Your task to perform on an android device: turn on translation in the chrome app Image 0: 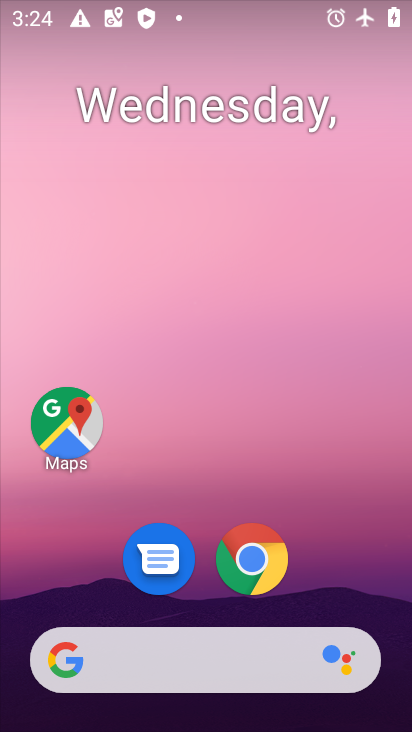
Step 0: drag from (196, 725) to (196, 154)
Your task to perform on an android device: turn on translation in the chrome app Image 1: 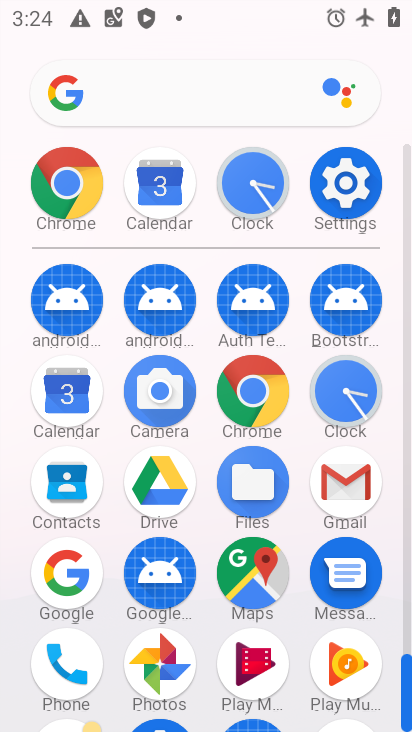
Step 1: click (259, 391)
Your task to perform on an android device: turn on translation in the chrome app Image 2: 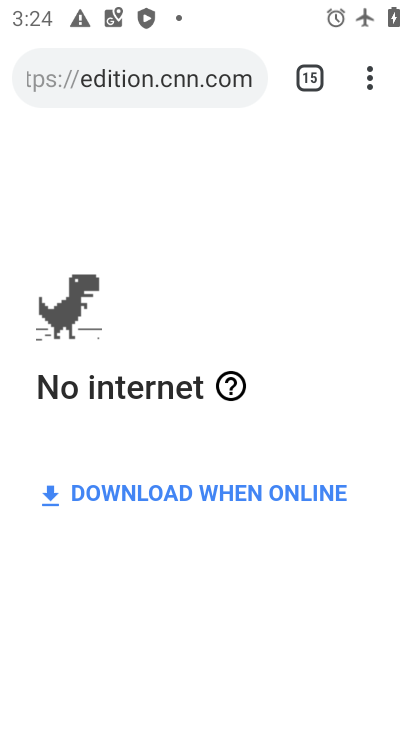
Step 2: click (369, 78)
Your task to perform on an android device: turn on translation in the chrome app Image 3: 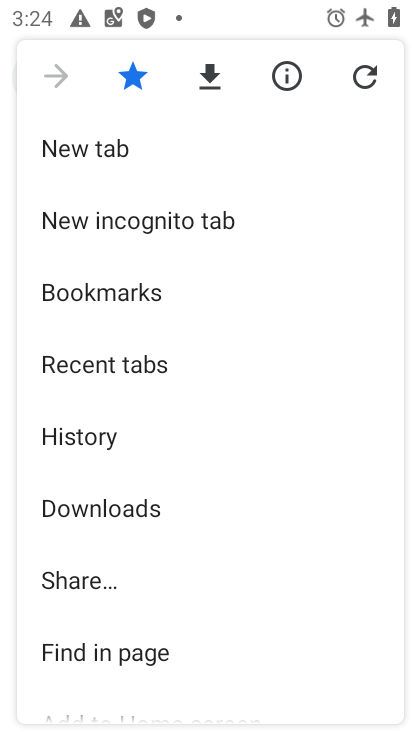
Step 3: drag from (142, 610) to (147, 227)
Your task to perform on an android device: turn on translation in the chrome app Image 4: 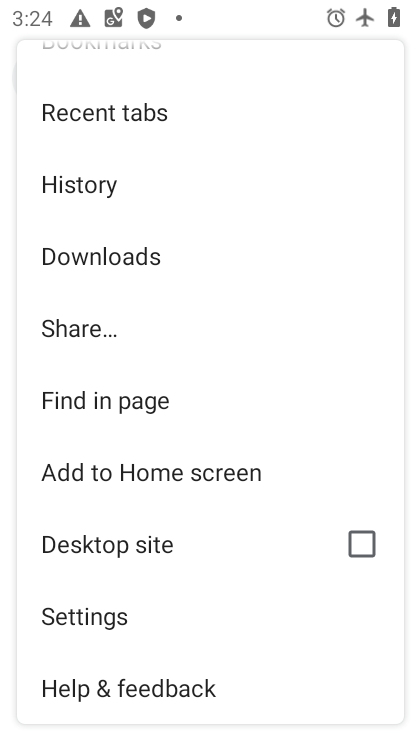
Step 4: click (107, 614)
Your task to perform on an android device: turn on translation in the chrome app Image 5: 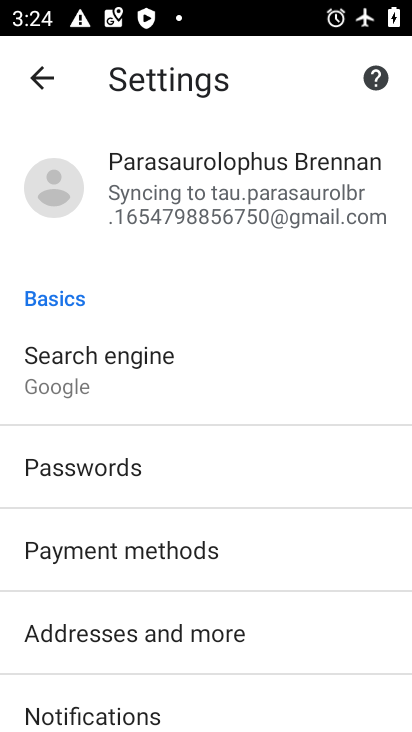
Step 5: drag from (108, 687) to (106, 375)
Your task to perform on an android device: turn on translation in the chrome app Image 6: 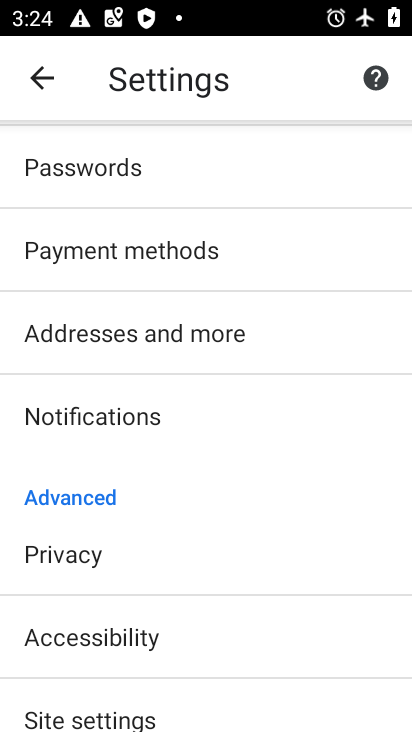
Step 6: drag from (118, 666) to (137, 391)
Your task to perform on an android device: turn on translation in the chrome app Image 7: 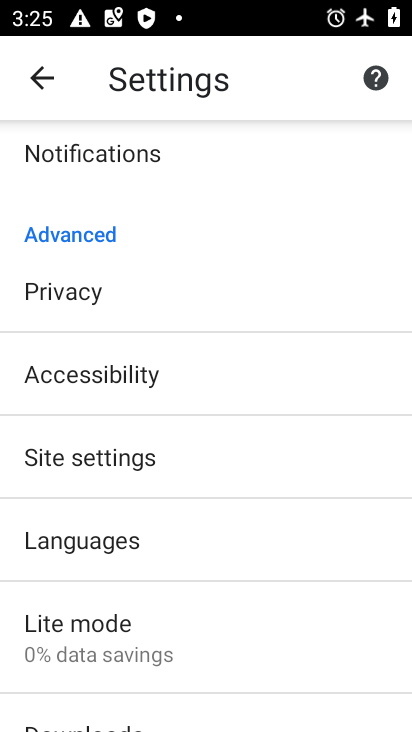
Step 7: click (102, 538)
Your task to perform on an android device: turn on translation in the chrome app Image 8: 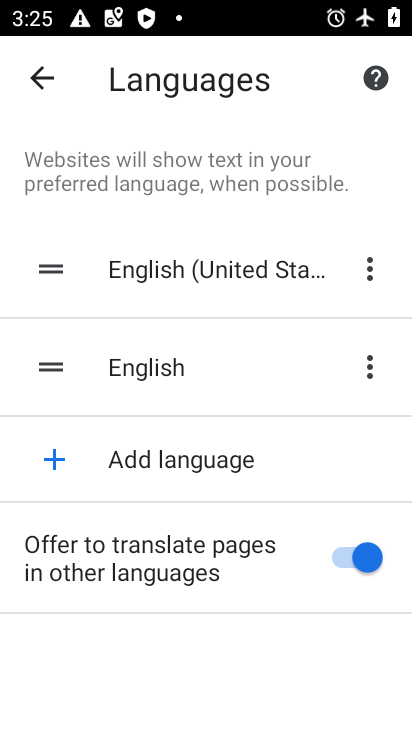
Step 8: task complete